Your task to perform on an android device: Go to Yahoo.com Image 0: 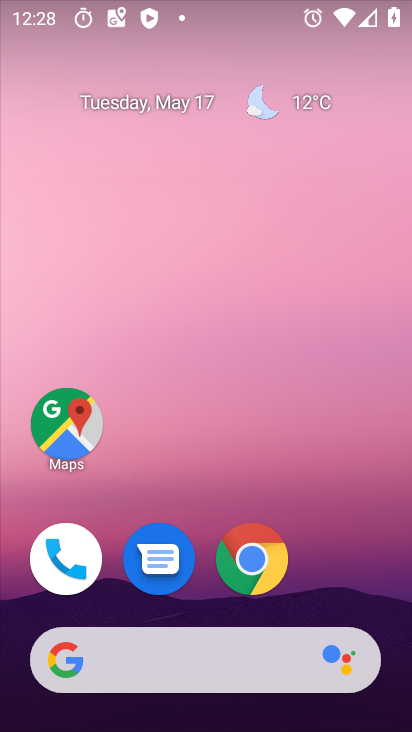
Step 0: click (258, 560)
Your task to perform on an android device: Go to Yahoo.com Image 1: 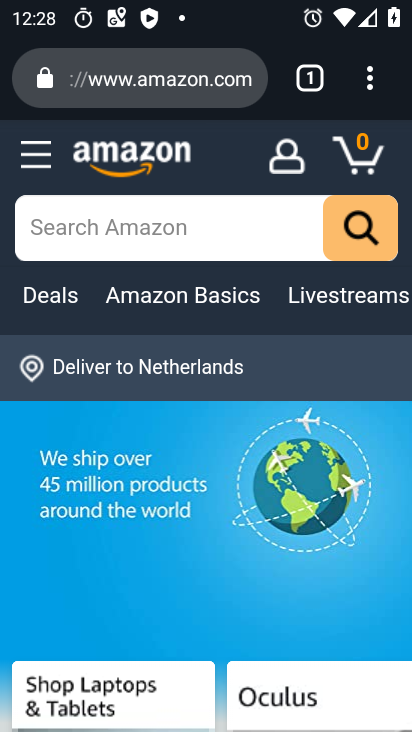
Step 1: click (177, 91)
Your task to perform on an android device: Go to Yahoo.com Image 2: 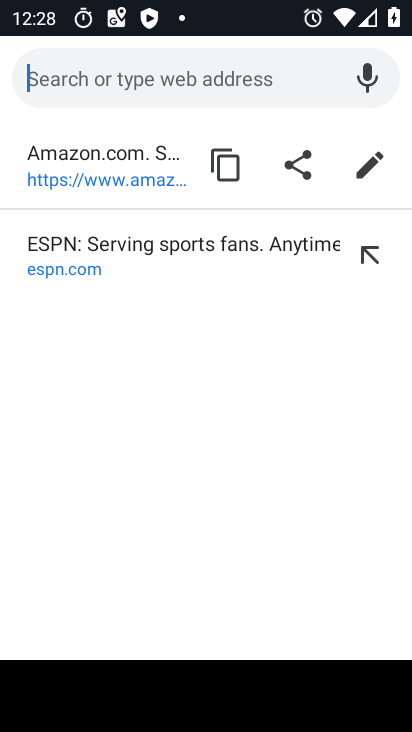
Step 2: type "yahoo.com"
Your task to perform on an android device: Go to Yahoo.com Image 3: 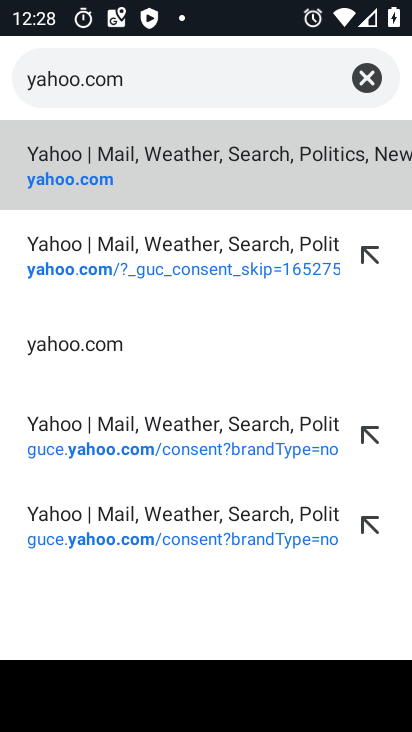
Step 3: click (101, 179)
Your task to perform on an android device: Go to Yahoo.com Image 4: 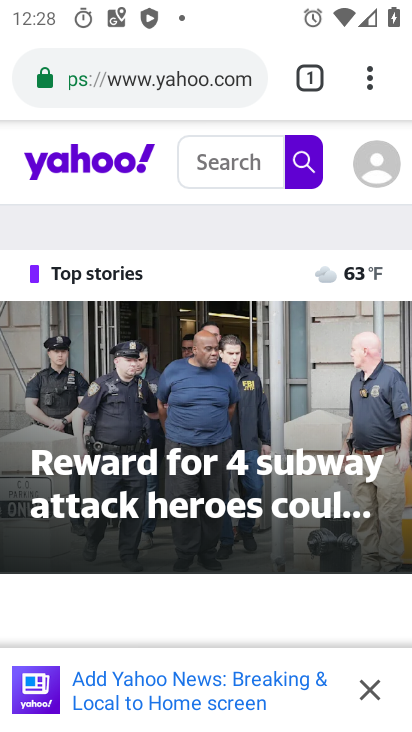
Step 4: task complete